Your task to perform on an android device: Open Amazon Image 0: 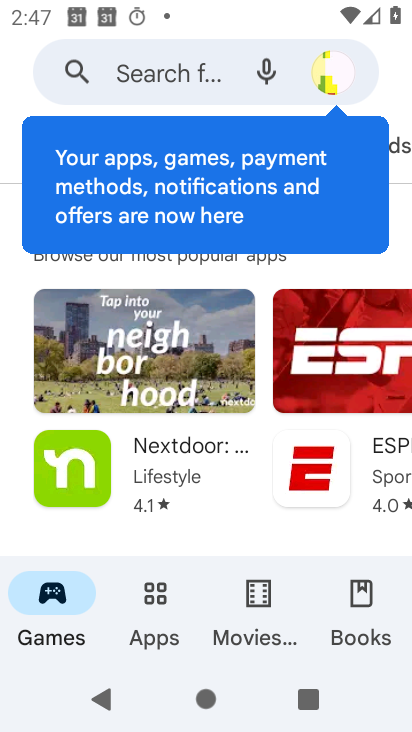
Step 0: press home button
Your task to perform on an android device: Open Amazon Image 1: 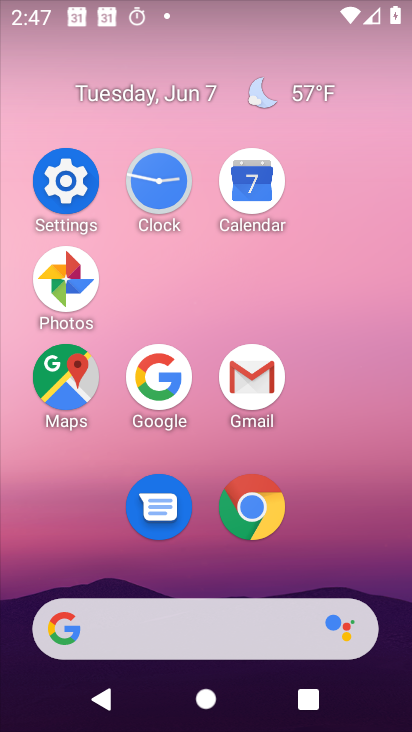
Step 1: click (261, 478)
Your task to perform on an android device: Open Amazon Image 2: 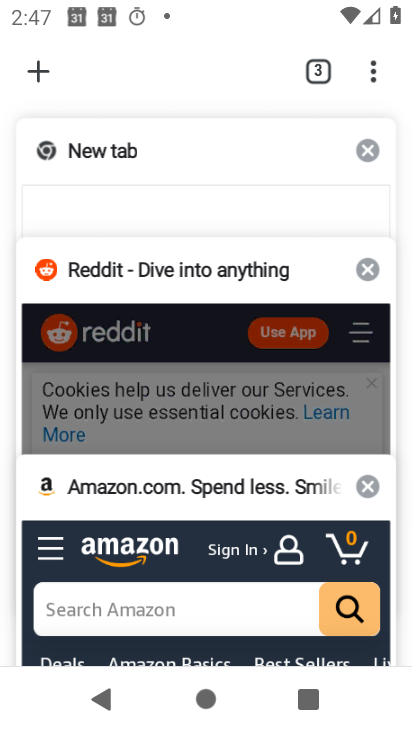
Step 2: click (217, 534)
Your task to perform on an android device: Open Amazon Image 3: 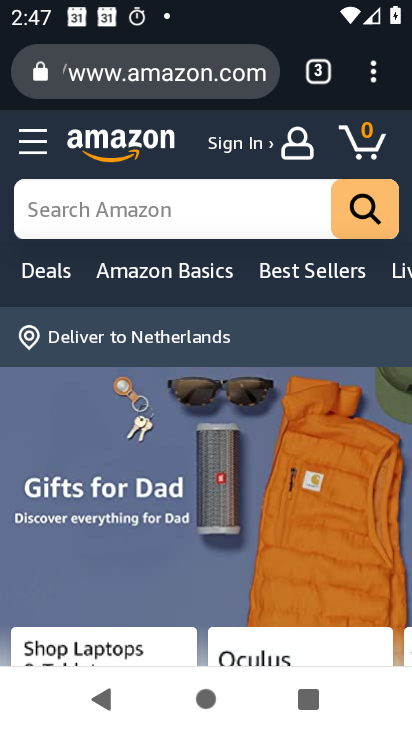
Step 3: task complete